Your task to perform on an android device: turn off location history Image 0: 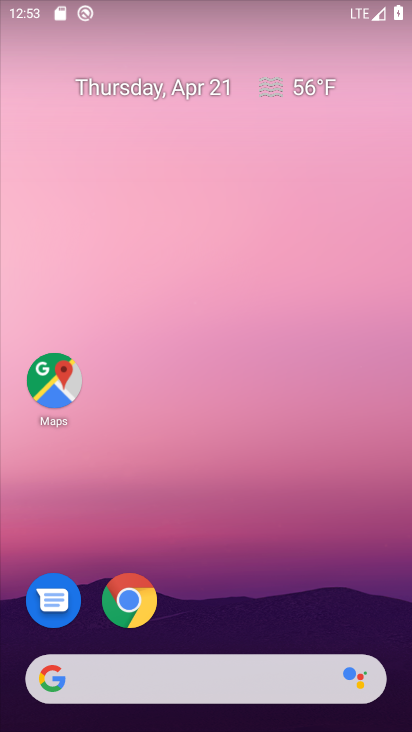
Step 0: drag from (298, 596) to (319, 135)
Your task to perform on an android device: turn off location history Image 1: 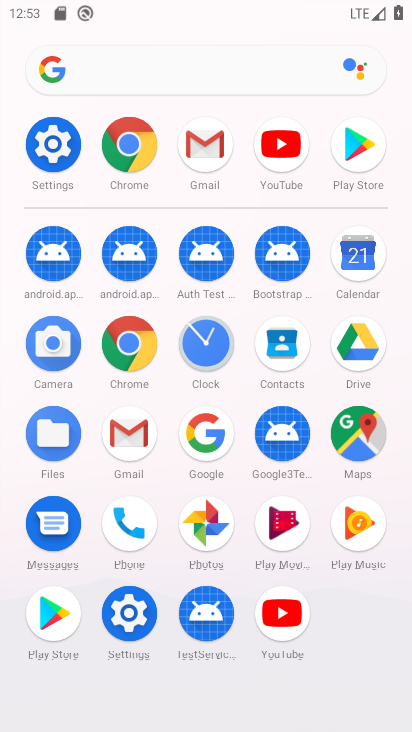
Step 1: click (62, 148)
Your task to perform on an android device: turn off location history Image 2: 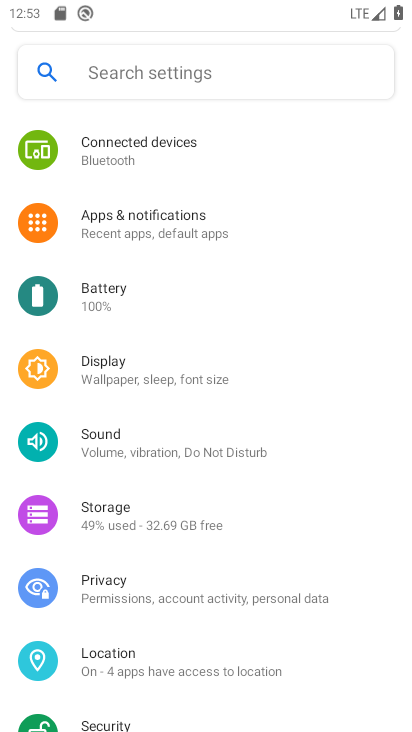
Step 2: click (133, 662)
Your task to perform on an android device: turn off location history Image 3: 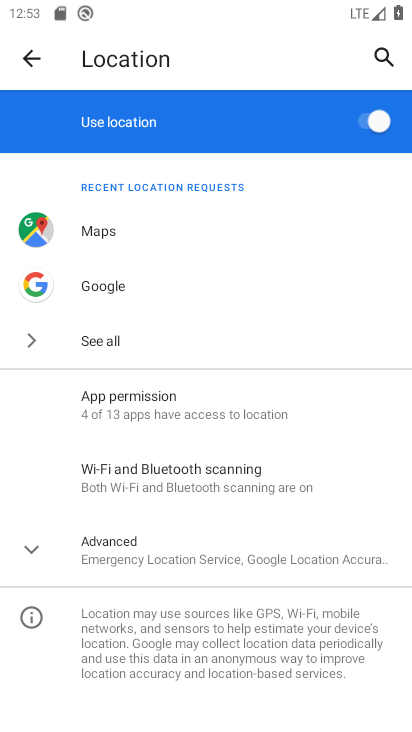
Step 3: click (31, 545)
Your task to perform on an android device: turn off location history Image 4: 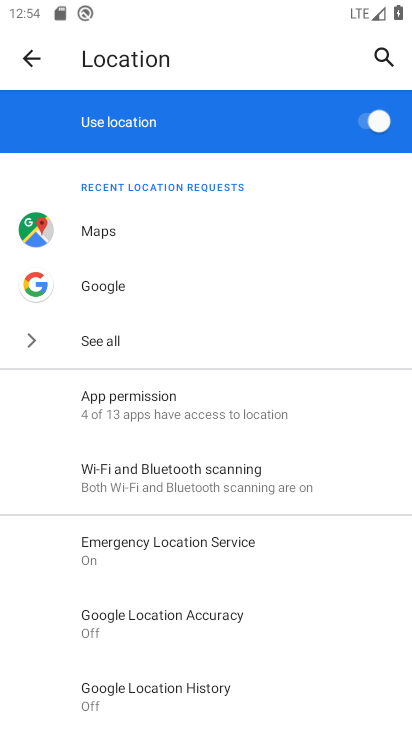
Step 4: task complete